Your task to perform on an android device: change notifications settings Image 0: 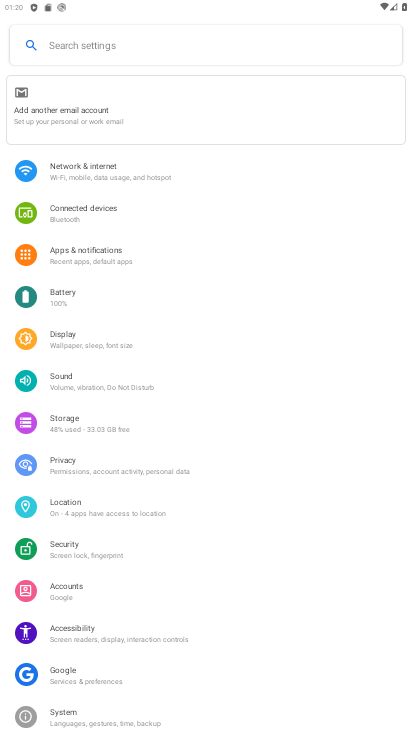
Step 0: click (87, 259)
Your task to perform on an android device: change notifications settings Image 1: 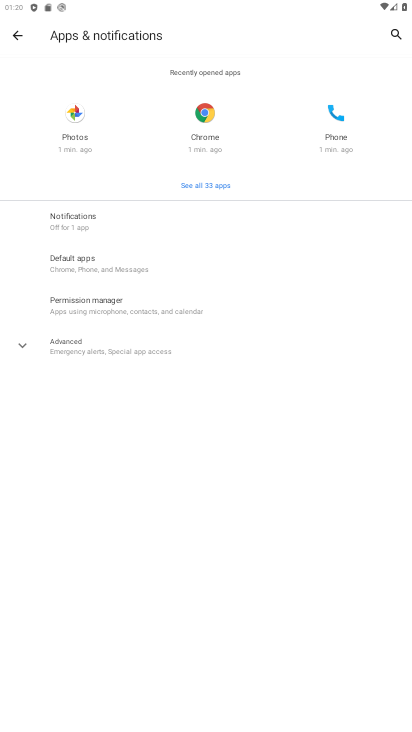
Step 1: click (101, 225)
Your task to perform on an android device: change notifications settings Image 2: 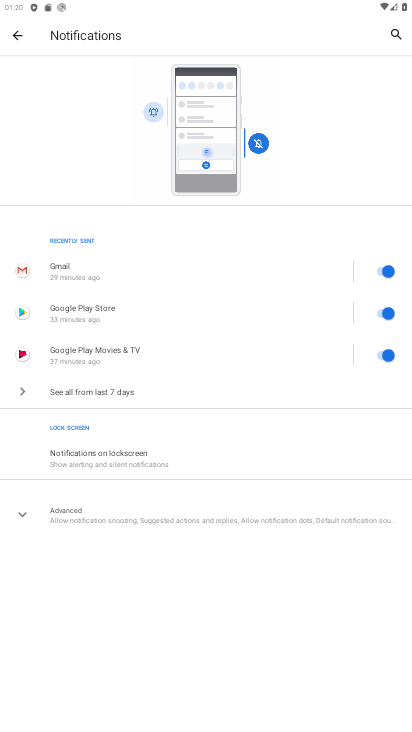
Step 2: task complete